Your task to perform on an android device: Open the map Image 0: 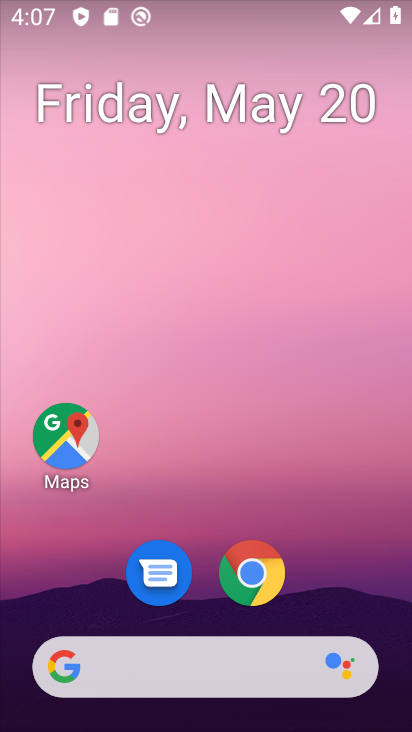
Step 0: click (96, 427)
Your task to perform on an android device: Open the map Image 1: 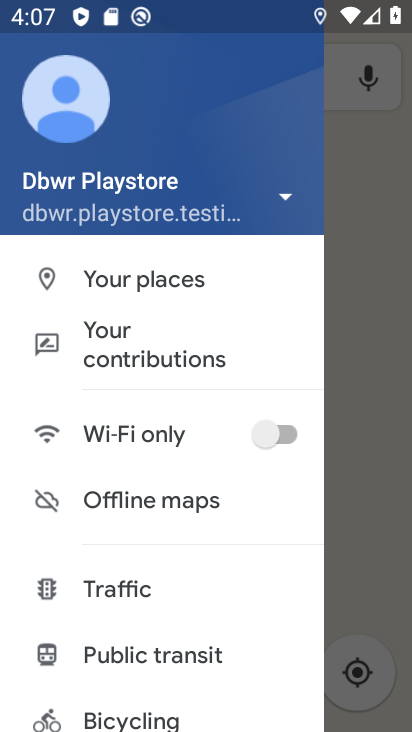
Step 1: click (362, 366)
Your task to perform on an android device: Open the map Image 2: 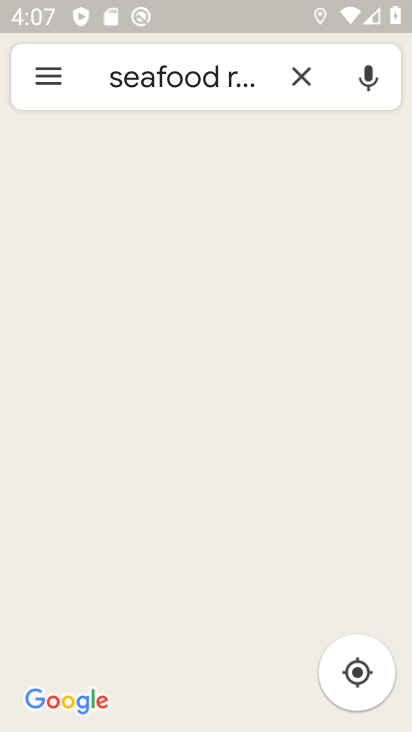
Step 2: task complete